Your task to perform on an android device: Show me productivity apps on the Play Store Image 0: 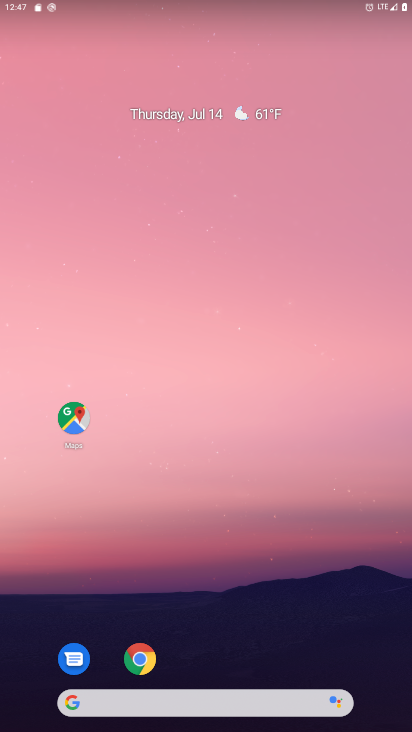
Step 0: press home button
Your task to perform on an android device: Show me productivity apps on the Play Store Image 1: 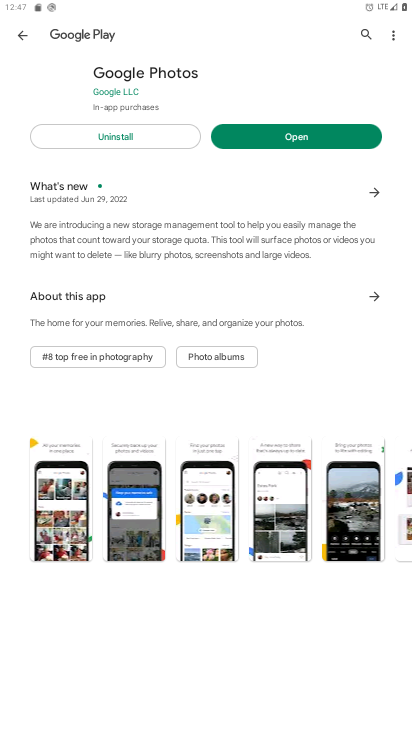
Step 1: drag from (209, 665) to (237, 10)
Your task to perform on an android device: Show me productivity apps on the Play Store Image 2: 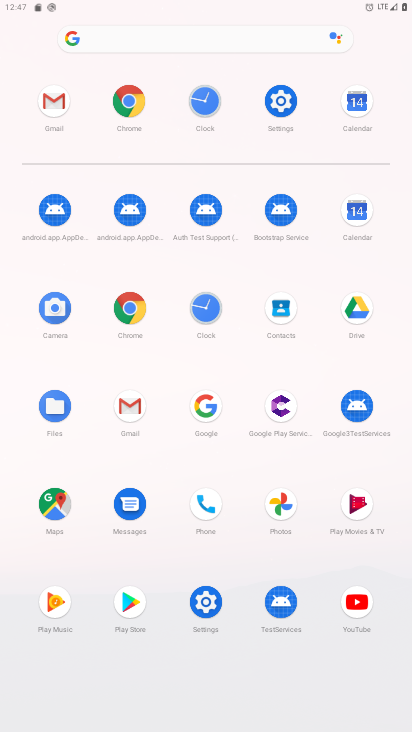
Step 2: click (124, 592)
Your task to perform on an android device: Show me productivity apps on the Play Store Image 3: 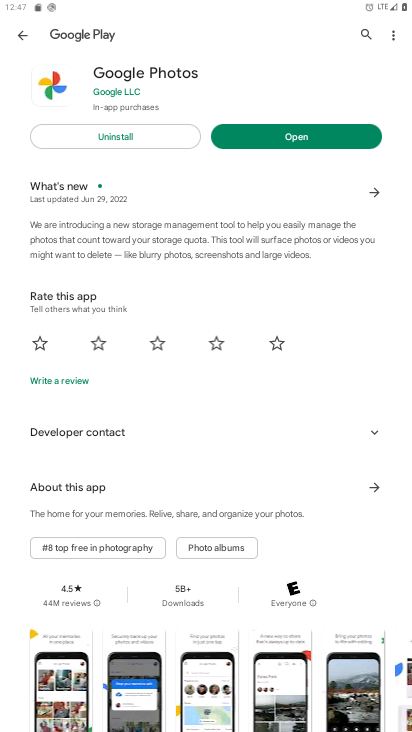
Step 3: click (24, 30)
Your task to perform on an android device: Show me productivity apps on the Play Store Image 4: 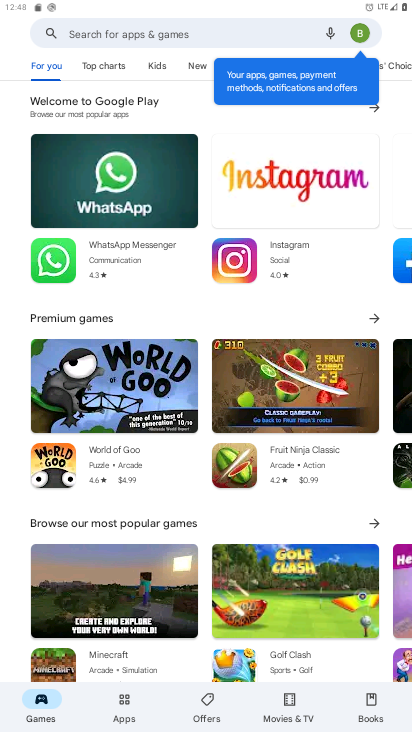
Step 4: click (121, 700)
Your task to perform on an android device: Show me productivity apps on the Play Store Image 5: 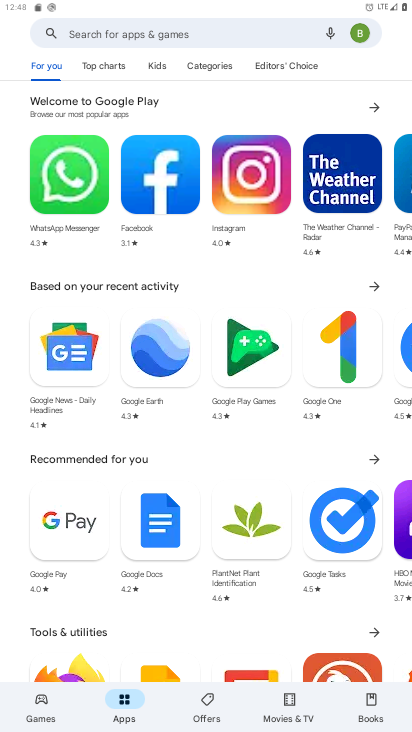
Step 5: click (206, 65)
Your task to perform on an android device: Show me productivity apps on the Play Store Image 6: 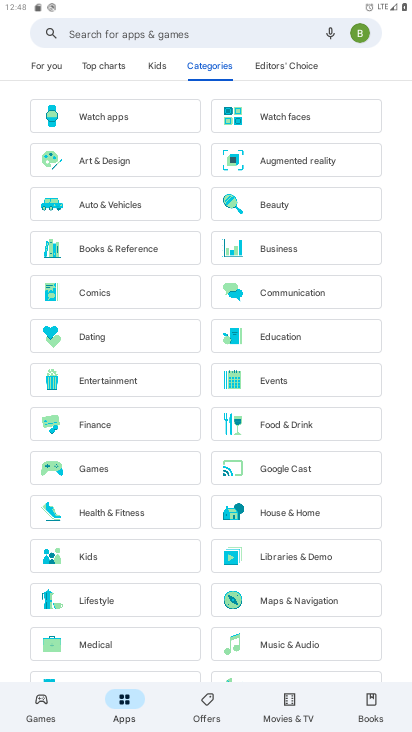
Step 6: drag from (208, 638) to (217, 388)
Your task to perform on an android device: Show me productivity apps on the Play Store Image 7: 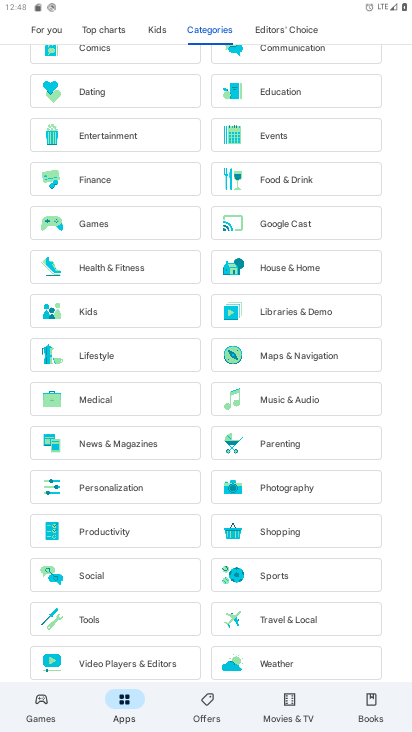
Step 7: click (111, 534)
Your task to perform on an android device: Show me productivity apps on the Play Store Image 8: 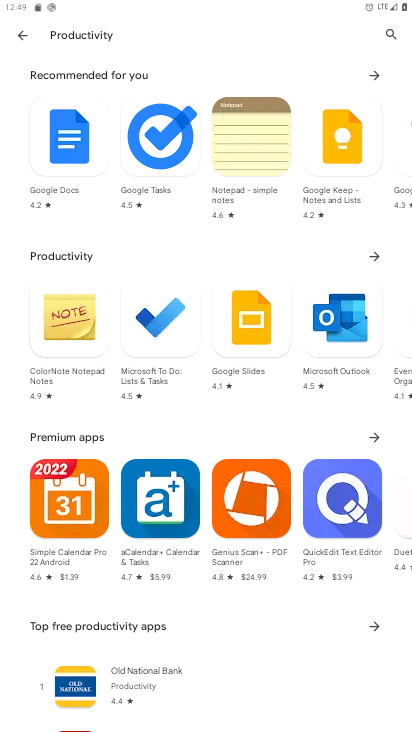
Step 8: task complete